Your task to perform on an android device: install app "Facebook Lite" Image 0: 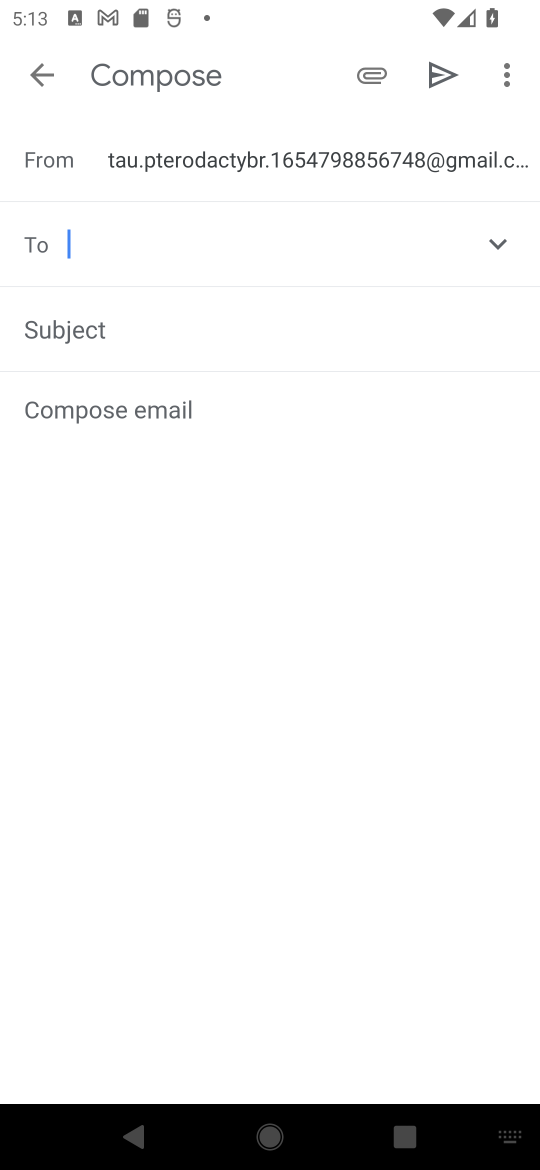
Step 0: press home button
Your task to perform on an android device: install app "Facebook Lite" Image 1: 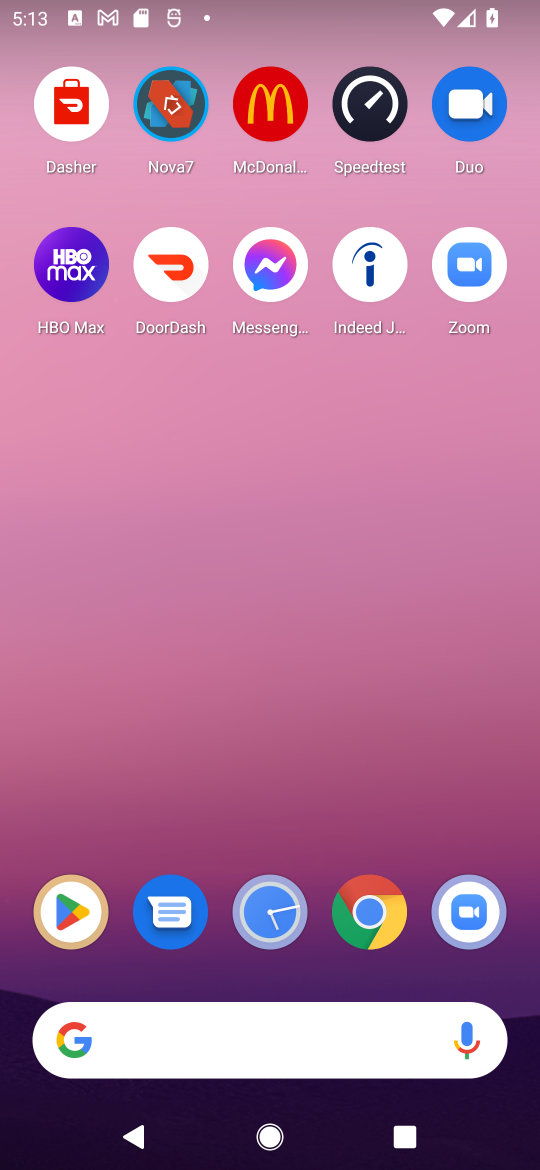
Step 1: click (52, 933)
Your task to perform on an android device: install app "Facebook Lite" Image 2: 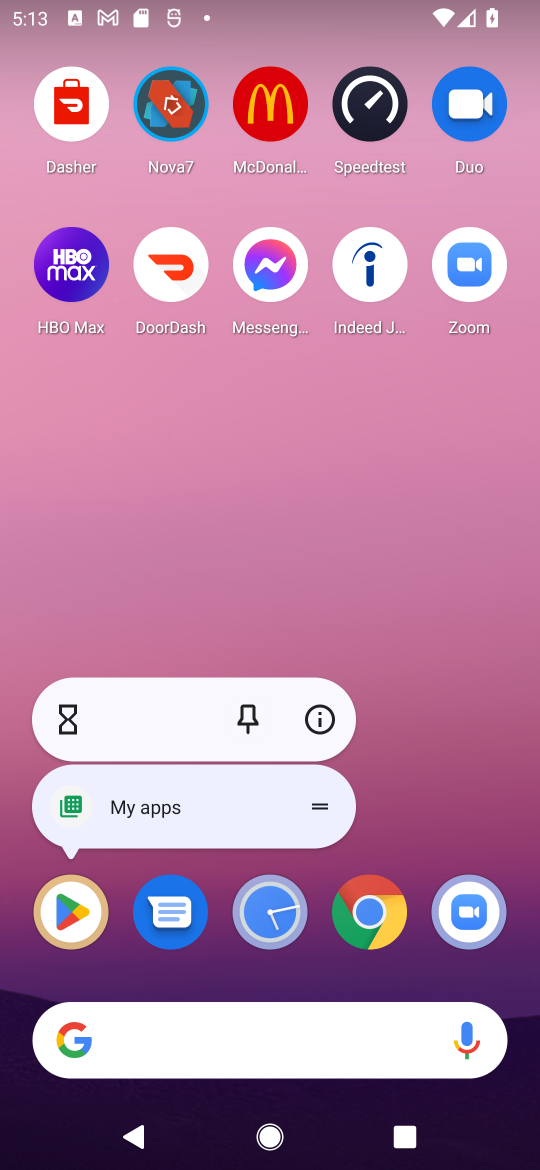
Step 2: click (61, 927)
Your task to perform on an android device: install app "Facebook Lite" Image 3: 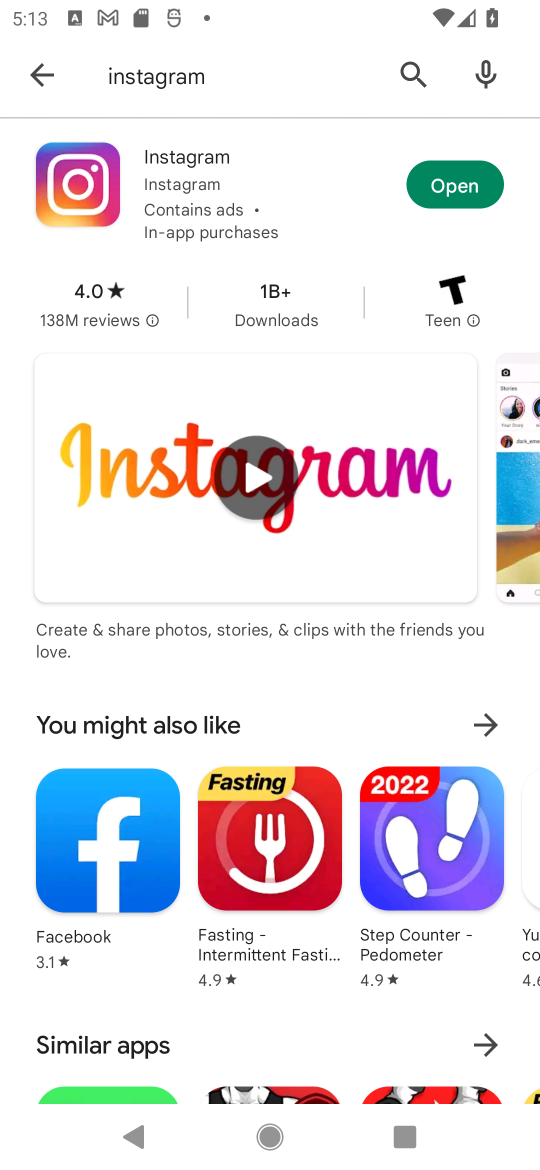
Step 3: click (395, 85)
Your task to perform on an android device: install app "Facebook Lite" Image 4: 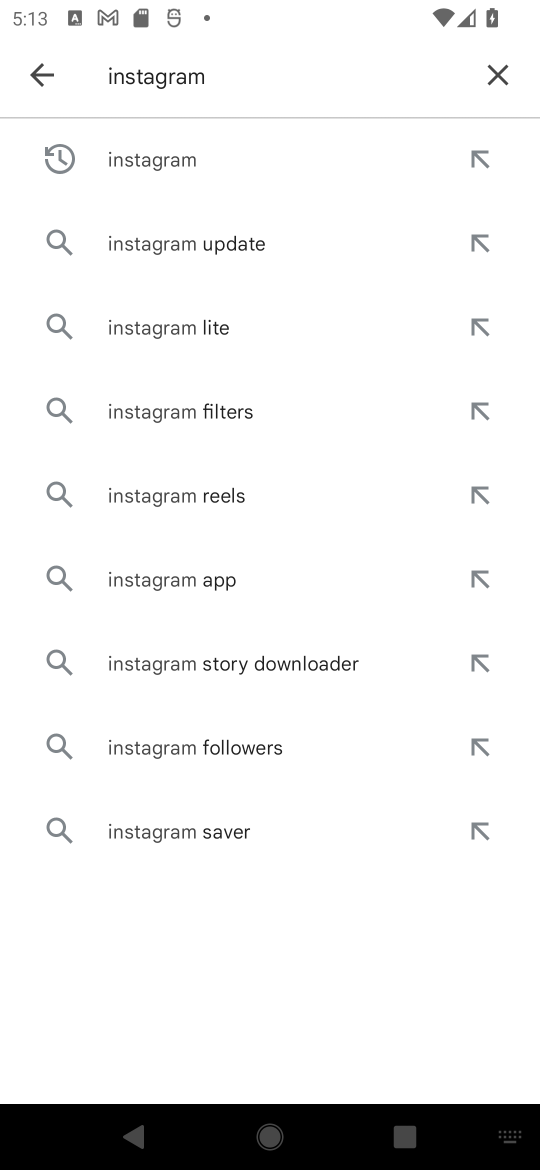
Step 4: click (503, 79)
Your task to perform on an android device: install app "Facebook Lite" Image 5: 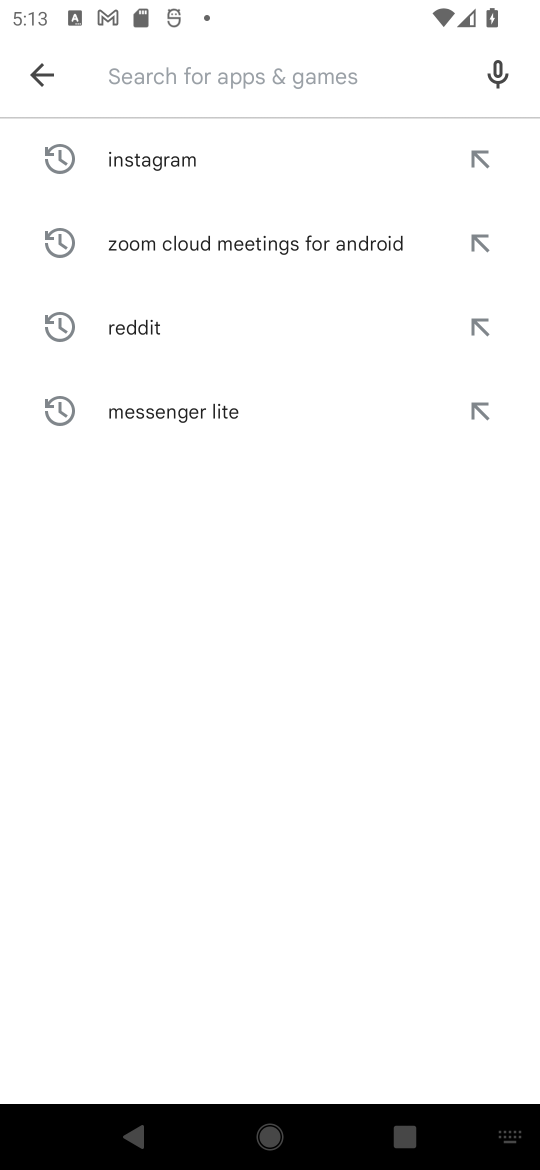
Step 5: type "Facebook Lite"
Your task to perform on an android device: install app "Facebook Lite" Image 6: 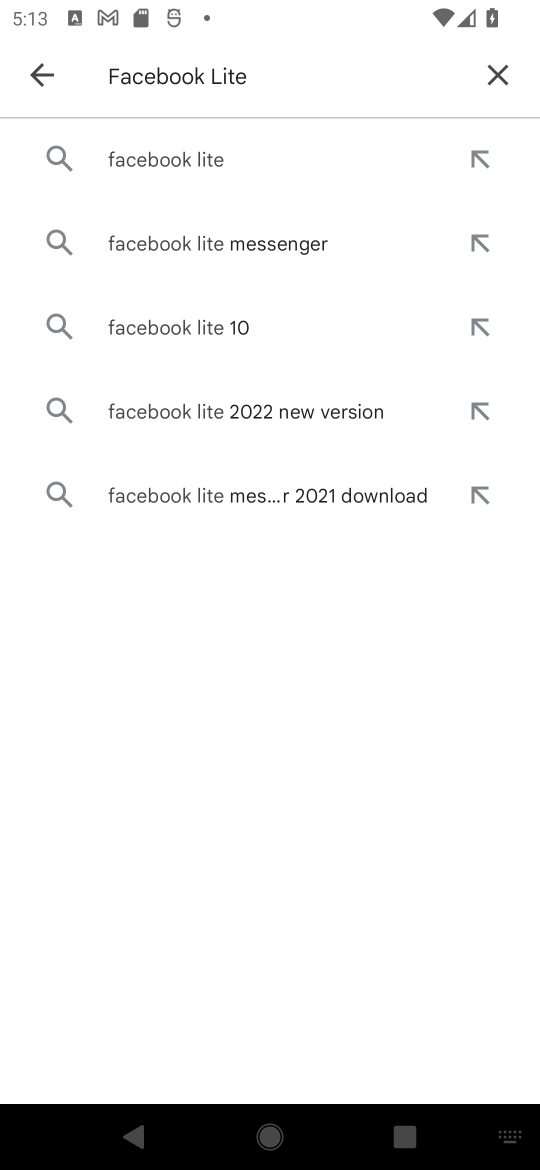
Step 6: click (168, 167)
Your task to perform on an android device: install app "Facebook Lite" Image 7: 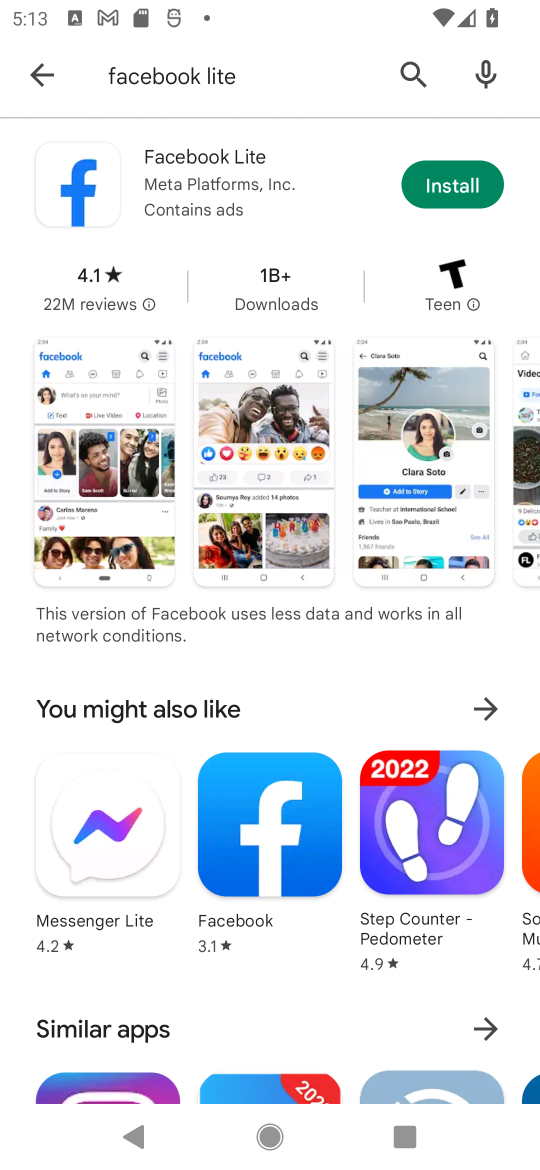
Step 7: click (463, 194)
Your task to perform on an android device: install app "Facebook Lite" Image 8: 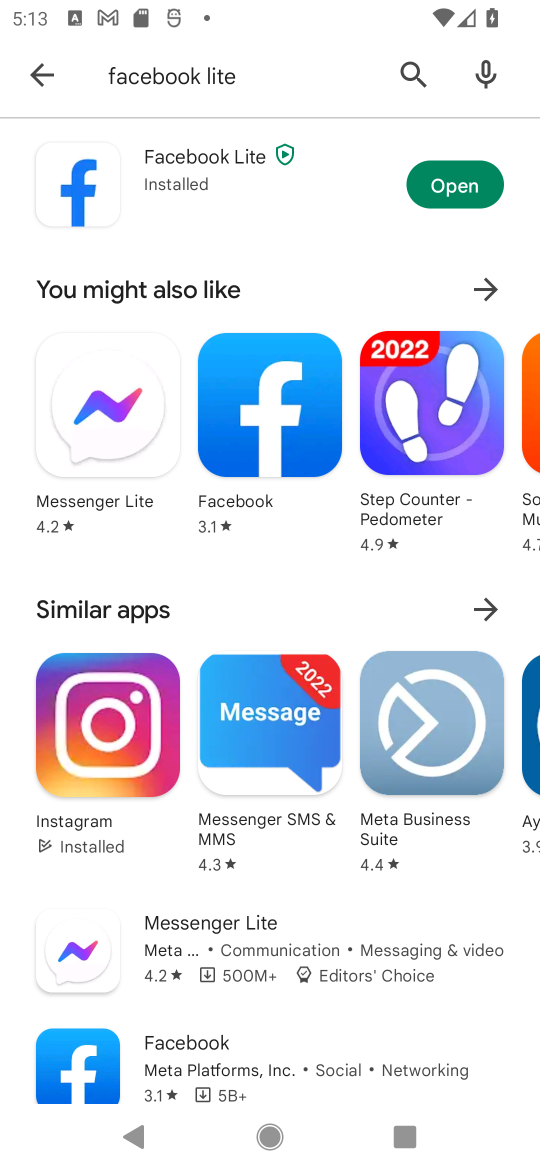
Step 8: task complete